Your task to perform on an android device: Open the web browser Image 0: 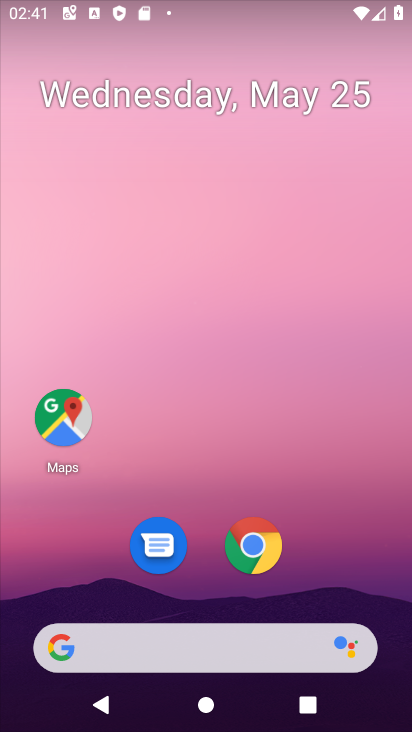
Step 0: click (237, 556)
Your task to perform on an android device: Open the web browser Image 1: 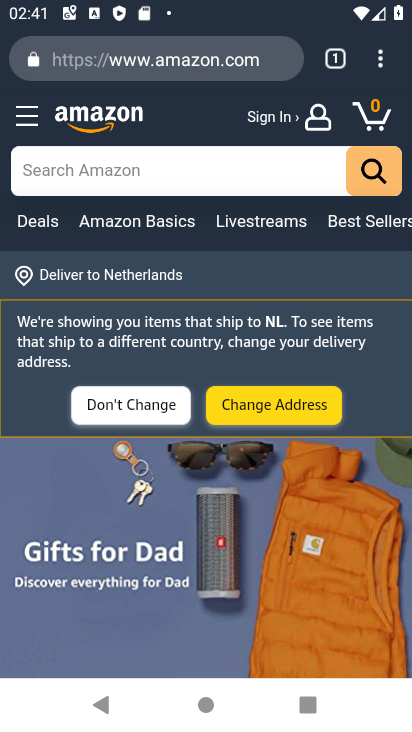
Step 1: task complete